Your task to perform on an android device: change the clock display to analog Image 0: 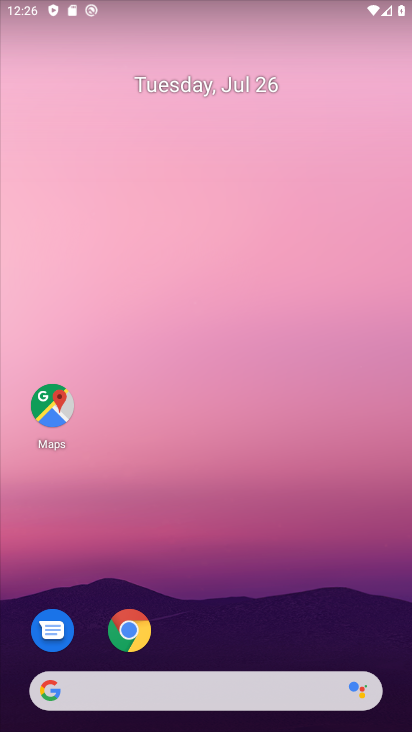
Step 0: drag from (383, 637) to (328, 95)
Your task to perform on an android device: change the clock display to analog Image 1: 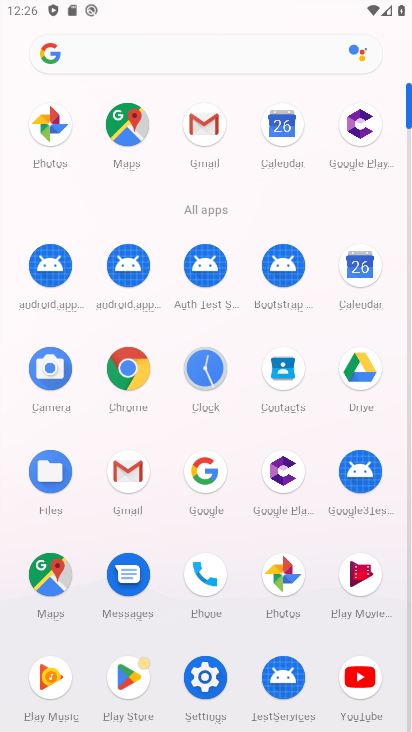
Step 1: click (200, 365)
Your task to perform on an android device: change the clock display to analog Image 2: 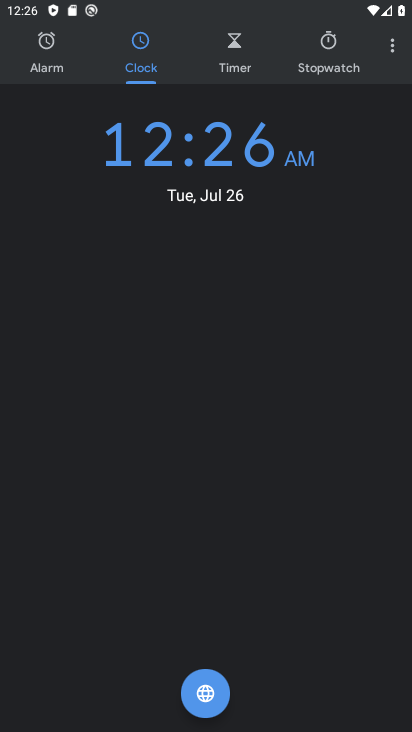
Step 2: click (390, 53)
Your task to perform on an android device: change the clock display to analog Image 3: 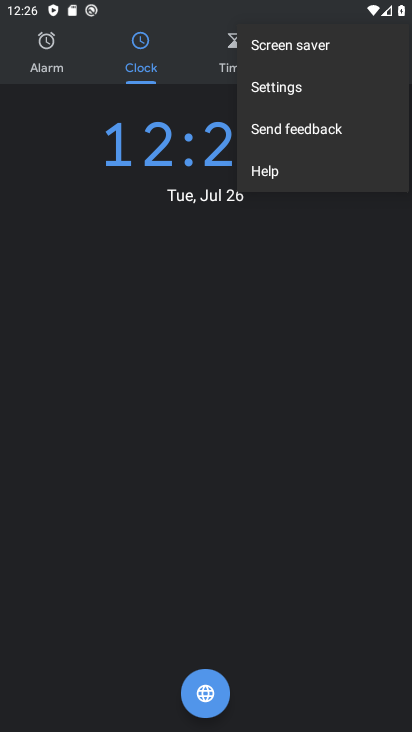
Step 3: click (278, 99)
Your task to perform on an android device: change the clock display to analog Image 4: 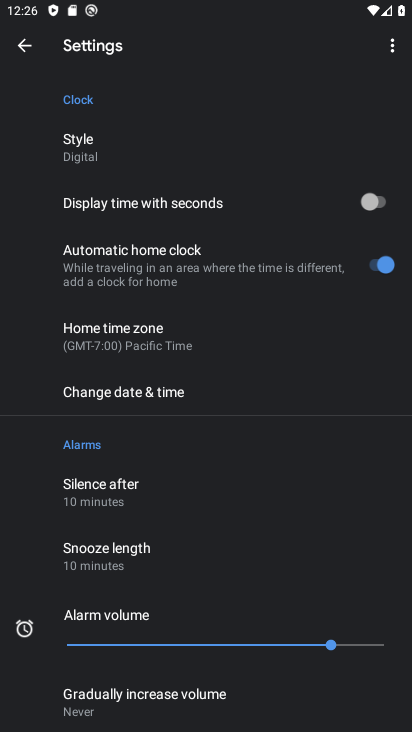
Step 4: click (87, 151)
Your task to perform on an android device: change the clock display to analog Image 5: 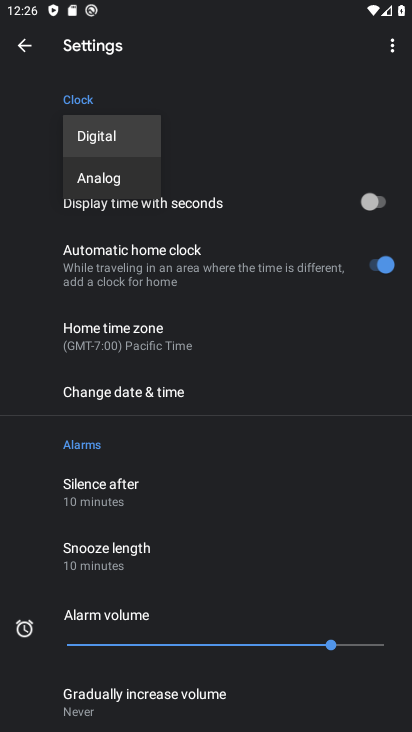
Step 5: click (104, 177)
Your task to perform on an android device: change the clock display to analog Image 6: 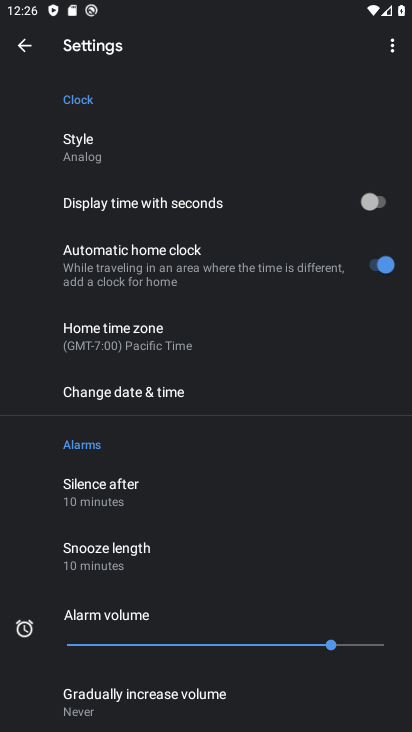
Step 6: task complete